Your task to perform on an android device: Do I have any events today? Image 0: 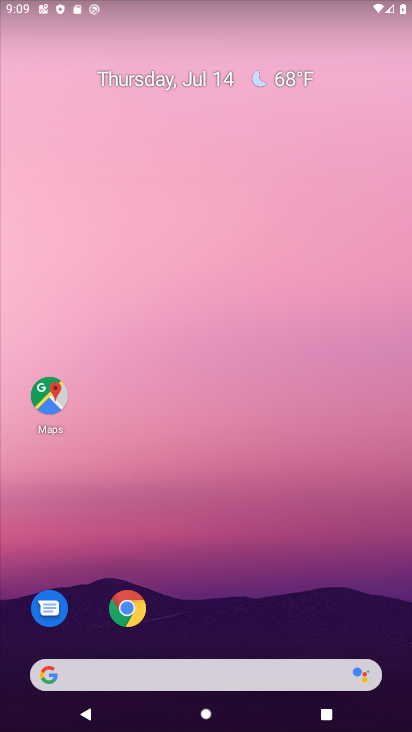
Step 0: drag from (177, 662) to (207, 172)
Your task to perform on an android device: Do I have any events today? Image 1: 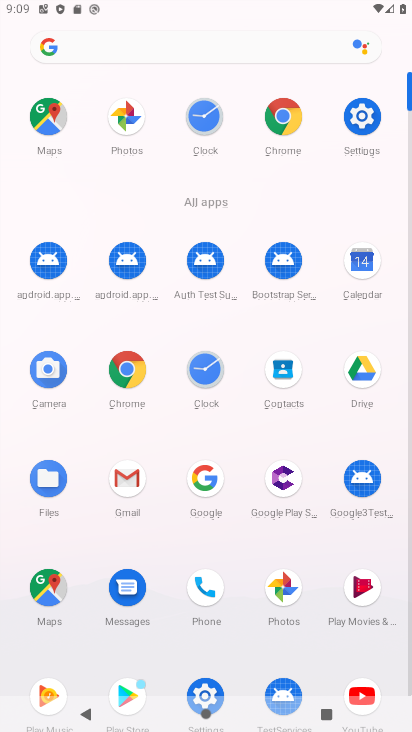
Step 1: click (367, 262)
Your task to perform on an android device: Do I have any events today? Image 2: 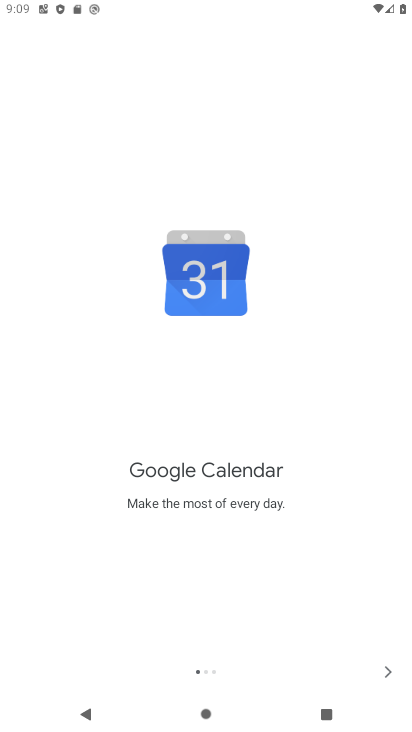
Step 2: click (385, 674)
Your task to perform on an android device: Do I have any events today? Image 3: 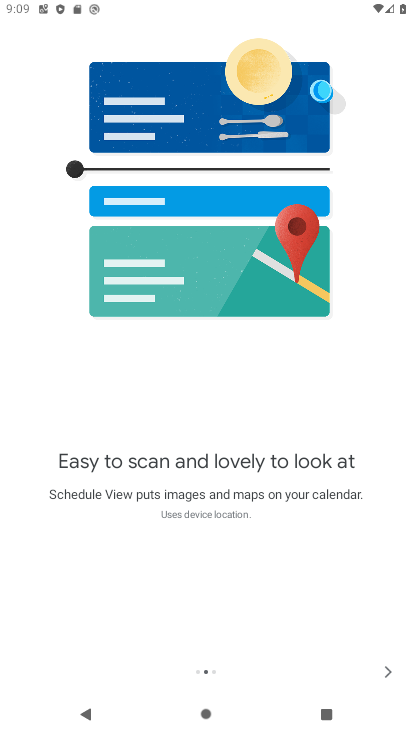
Step 3: click (387, 674)
Your task to perform on an android device: Do I have any events today? Image 4: 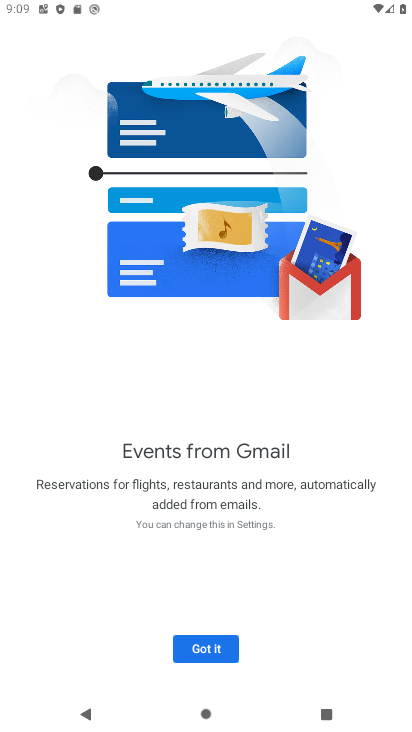
Step 4: click (218, 643)
Your task to perform on an android device: Do I have any events today? Image 5: 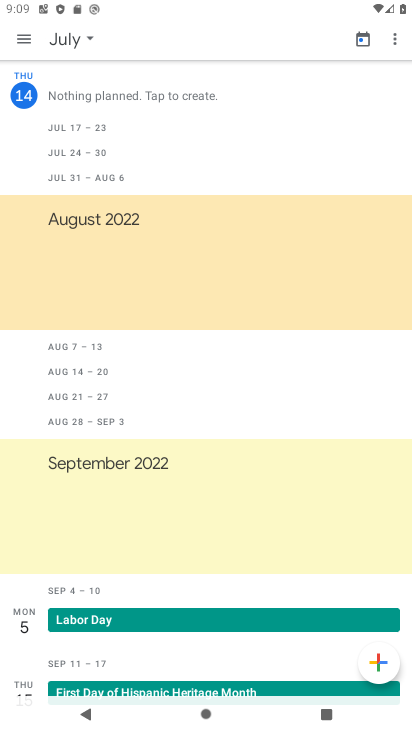
Step 5: task complete